Your task to perform on an android device: Empty the shopping cart on bestbuy. Search for "macbook" on bestbuy, select the first entry, and add it to the cart. Image 0: 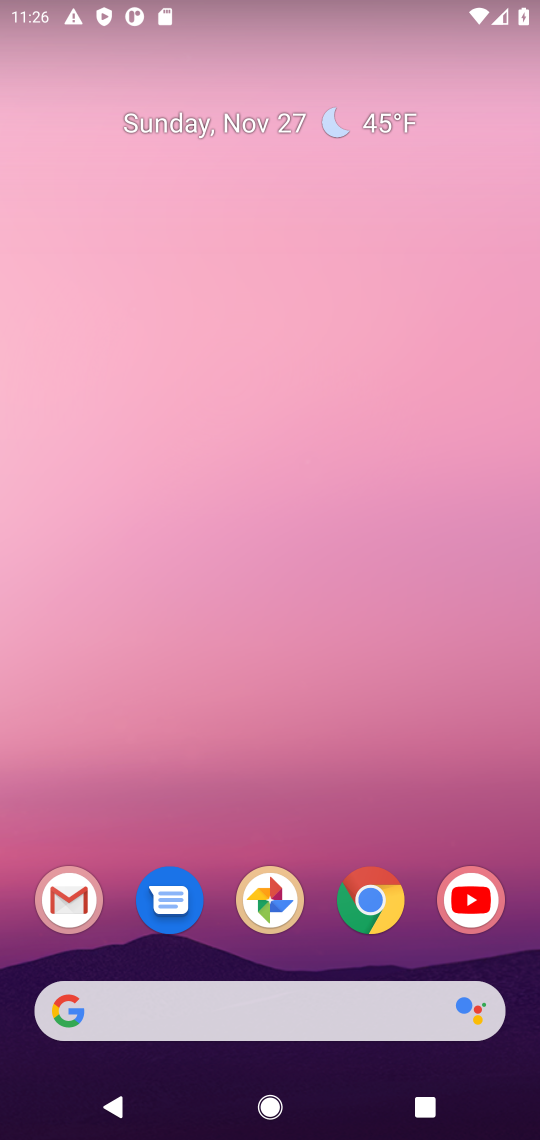
Step 0: click (363, 887)
Your task to perform on an android device: Empty the shopping cart on bestbuy. Search for "macbook" on bestbuy, select the first entry, and add it to the cart. Image 1: 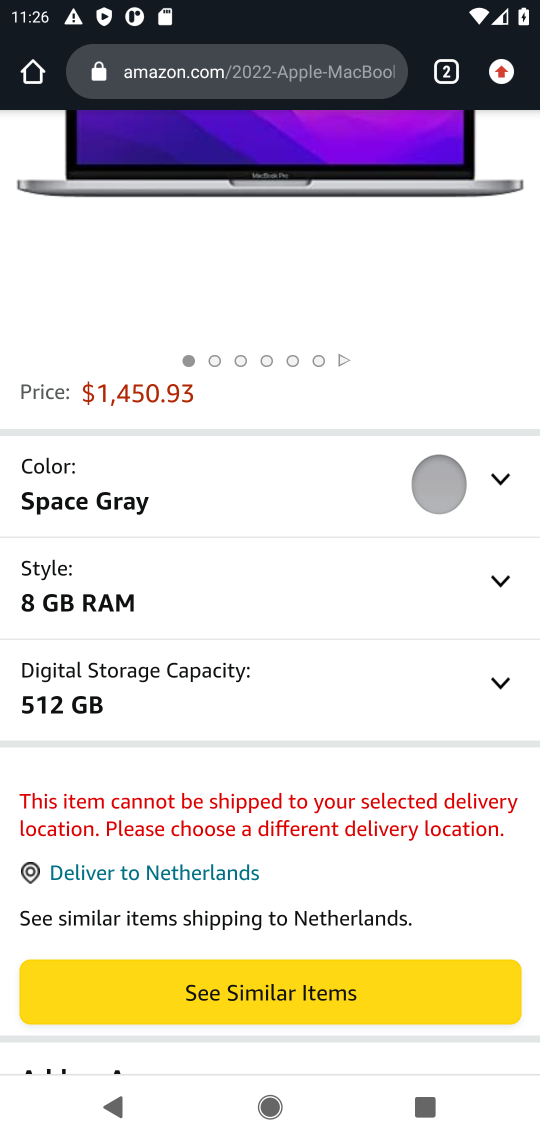
Step 1: click (240, 71)
Your task to perform on an android device: Empty the shopping cart on bestbuy. Search for "macbook" on bestbuy, select the first entry, and add it to the cart. Image 2: 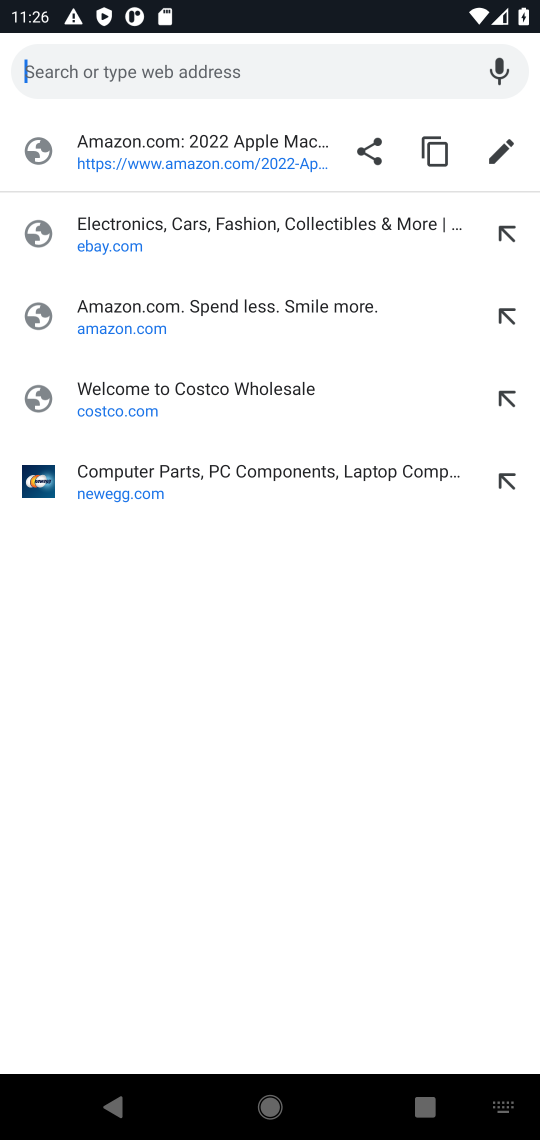
Step 2: type "bestbuy.com"
Your task to perform on an android device: Empty the shopping cart on bestbuy. Search for "macbook" on bestbuy, select the first entry, and add it to the cart. Image 3: 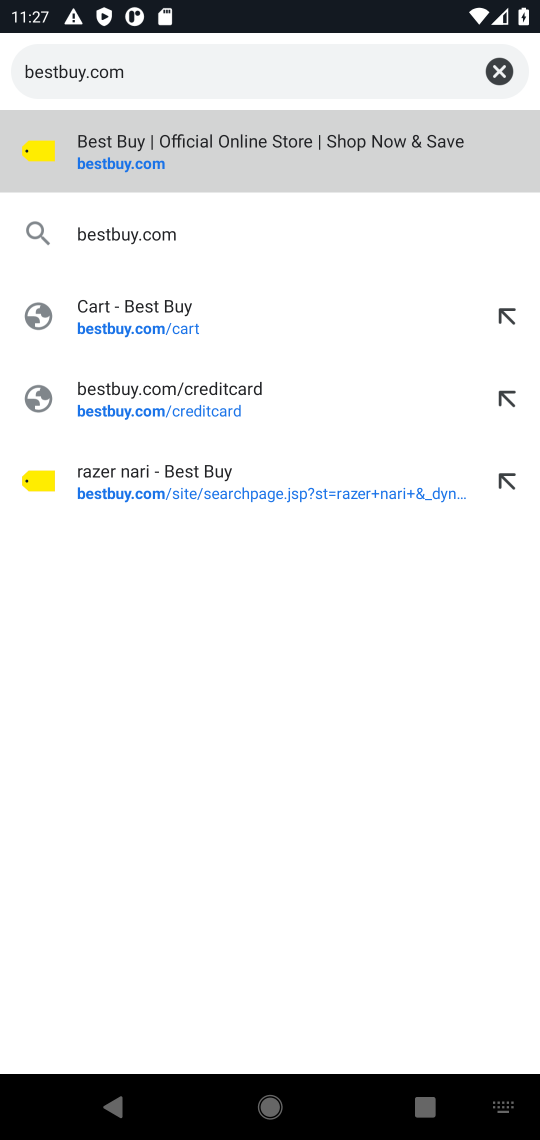
Step 3: click (111, 154)
Your task to perform on an android device: Empty the shopping cart on bestbuy. Search for "macbook" on bestbuy, select the first entry, and add it to the cart. Image 4: 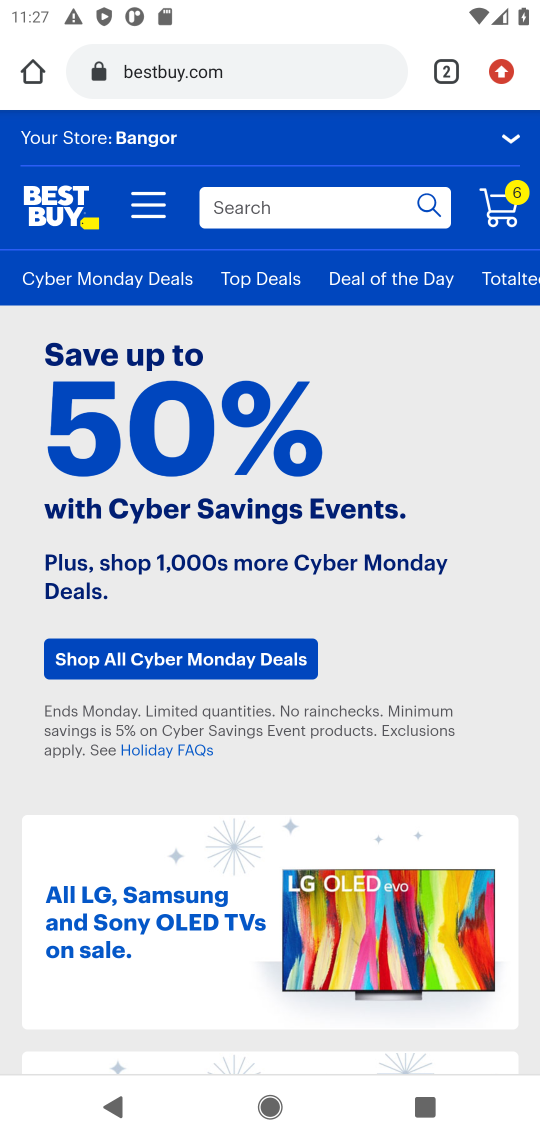
Step 4: click (504, 213)
Your task to perform on an android device: Empty the shopping cart on bestbuy. Search for "macbook" on bestbuy, select the first entry, and add it to the cart. Image 5: 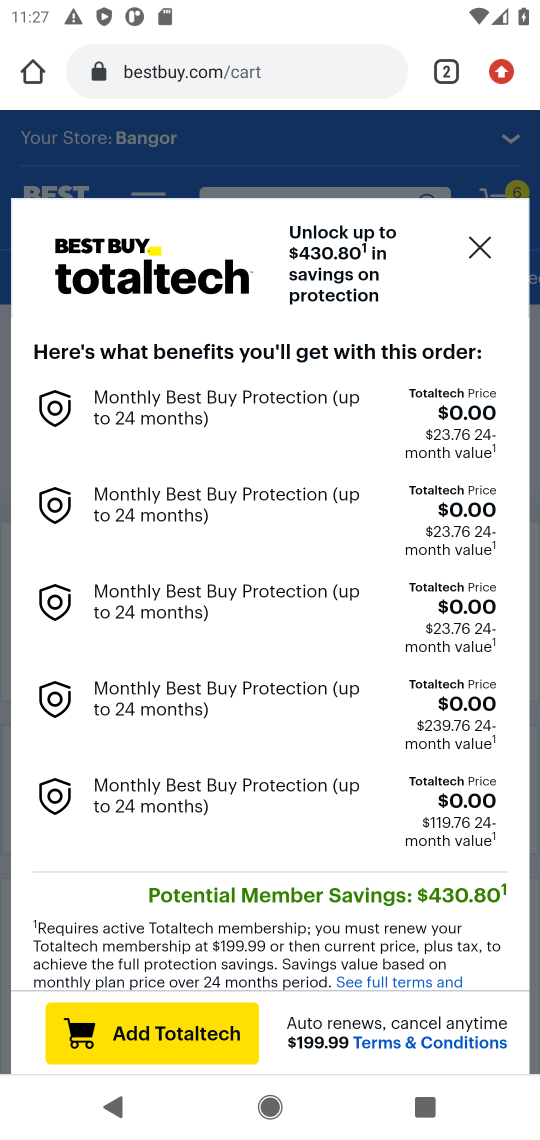
Step 5: click (486, 244)
Your task to perform on an android device: Empty the shopping cart on bestbuy. Search for "macbook" on bestbuy, select the first entry, and add it to the cart. Image 6: 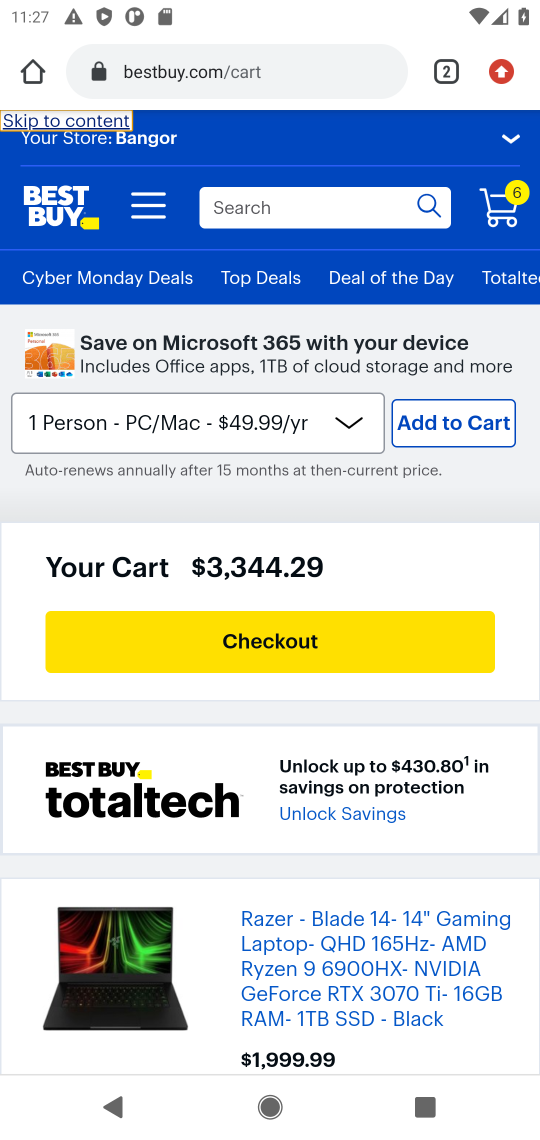
Step 6: drag from (233, 767) to (261, 289)
Your task to perform on an android device: Empty the shopping cart on bestbuy. Search for "macbook" on bestbuy, select the first entry, and add it to the cart. Image 7: 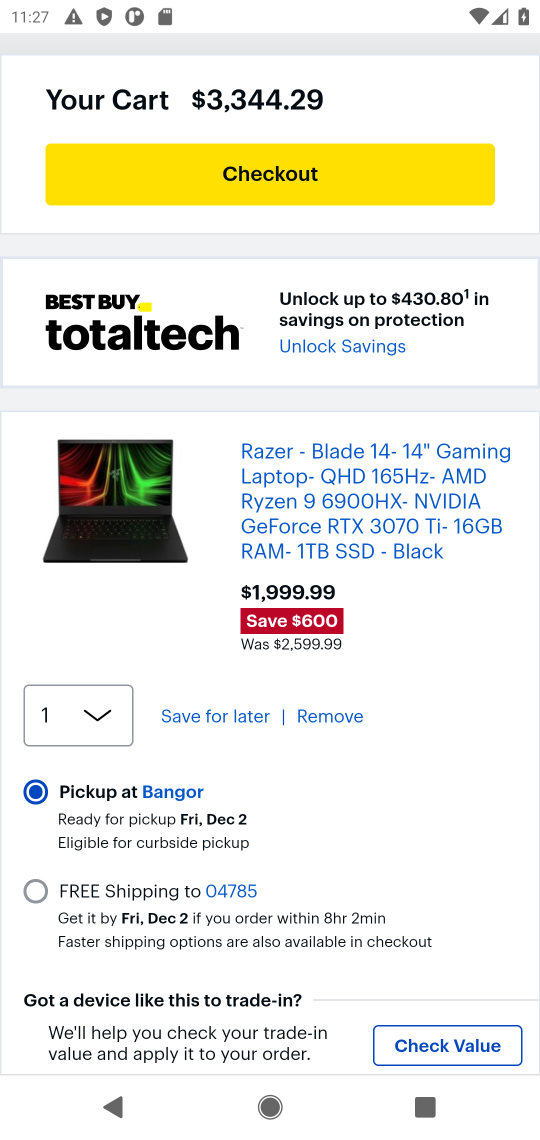
Step 7: click (328, 716)
Your task to perform on an android device: Empty the shopping cart on bestbuy. Search for "macbook" on bestbuy, select the first entry, and add it to the cart. Image 8: 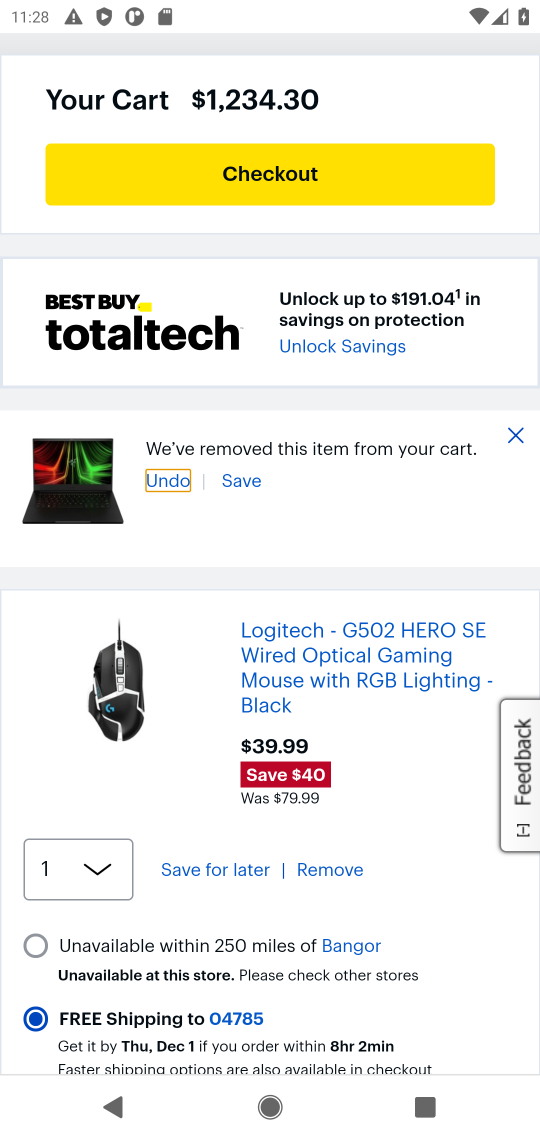
Step 8: click (314, 867)
Your task to perform on an android device: Empty the shopping cart on bestbuy. Search for "macbook" on bestbuy, select the first entry, and add it to the cart. Image 9: 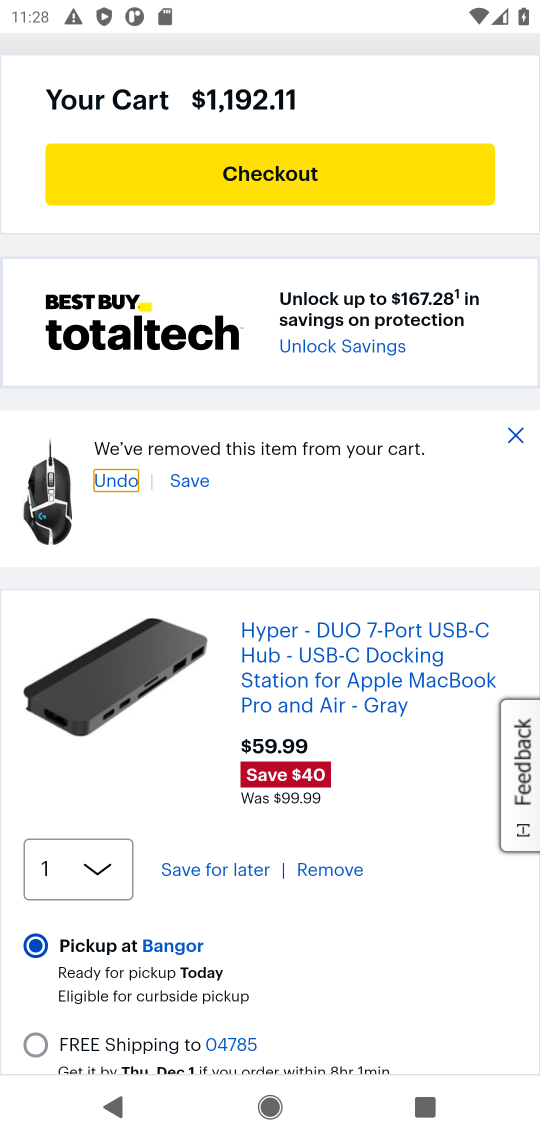
Step 9: click (350, 875)
Your task to perform on an android device: Empty the shopping cart on bestbuy. Search for "macbook" on bestbuy, select the first entry, and add it to the cart. Image 10: 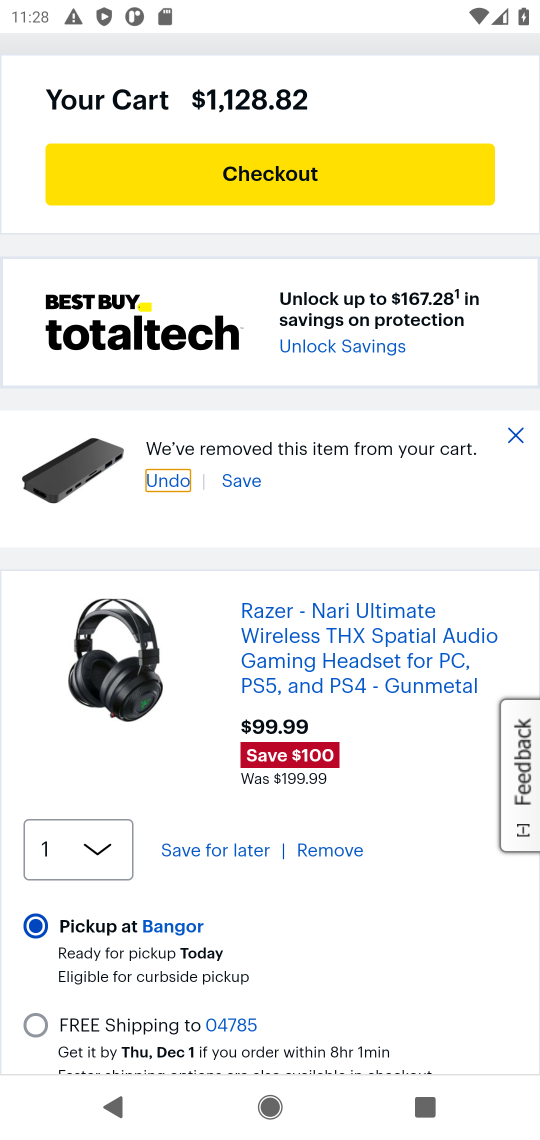
Step 10: click (341, 857)
Your task to perform on an android device: Empty the shopping cart on bestbuy. Search for "macbook" on bestbuy, select the first entry, and add it to the cart. Image 11: 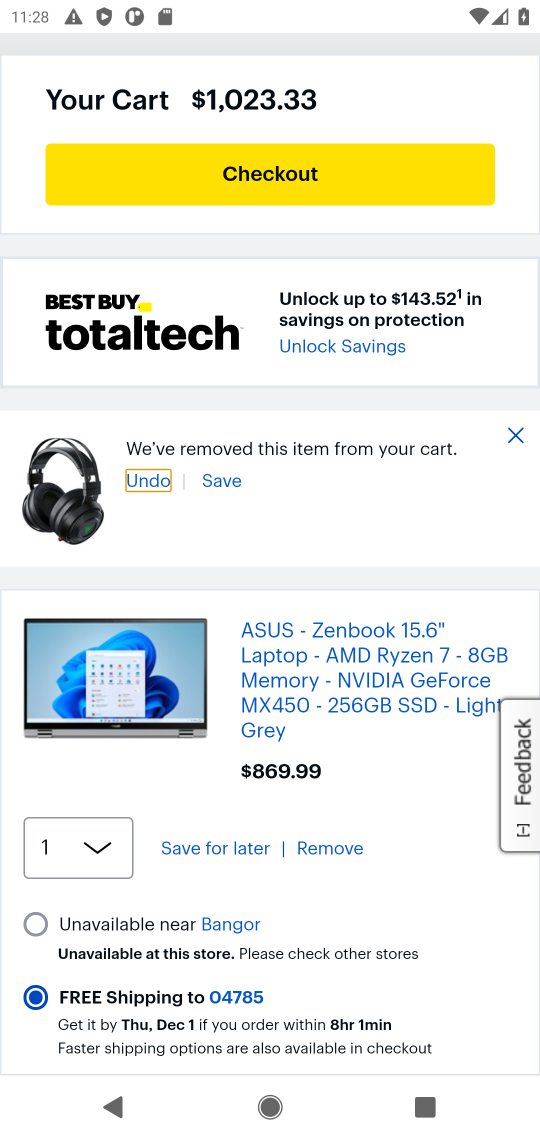
Step 11: click (341, 857)
Your task to perform on an android device: Empty the shopping cart on bestbuy. Search for "macbook" on bestbuy, select the first entry, and add it to the cart. Image 12: 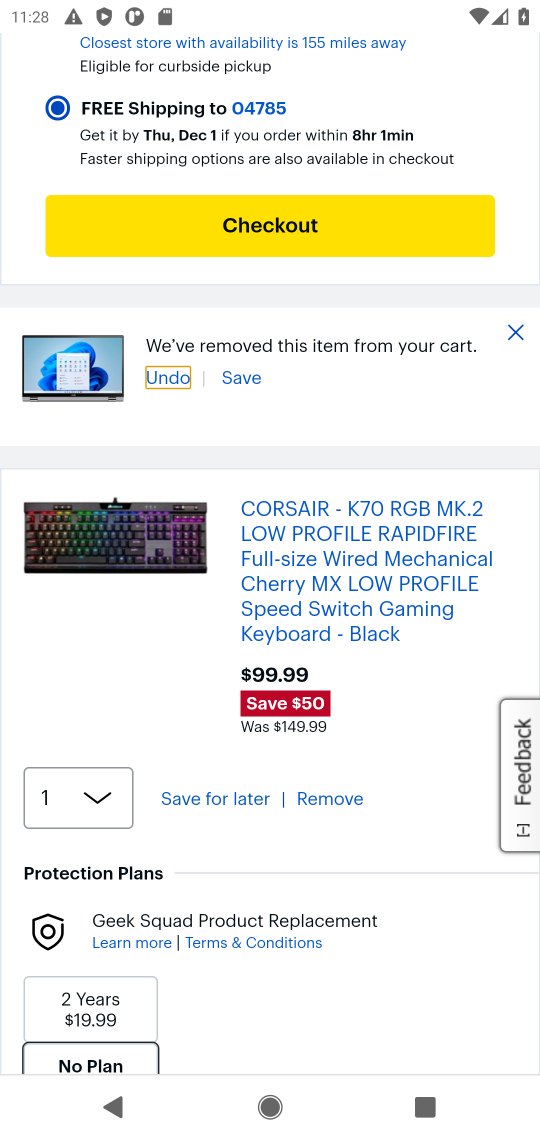
Step 12: click (339, 808)
Your task to perform on an android device: Empty the shopping cart on bestbuy. Search for "macbook" on bestbuy, select the first entry, and add it to the cart. Image 13: 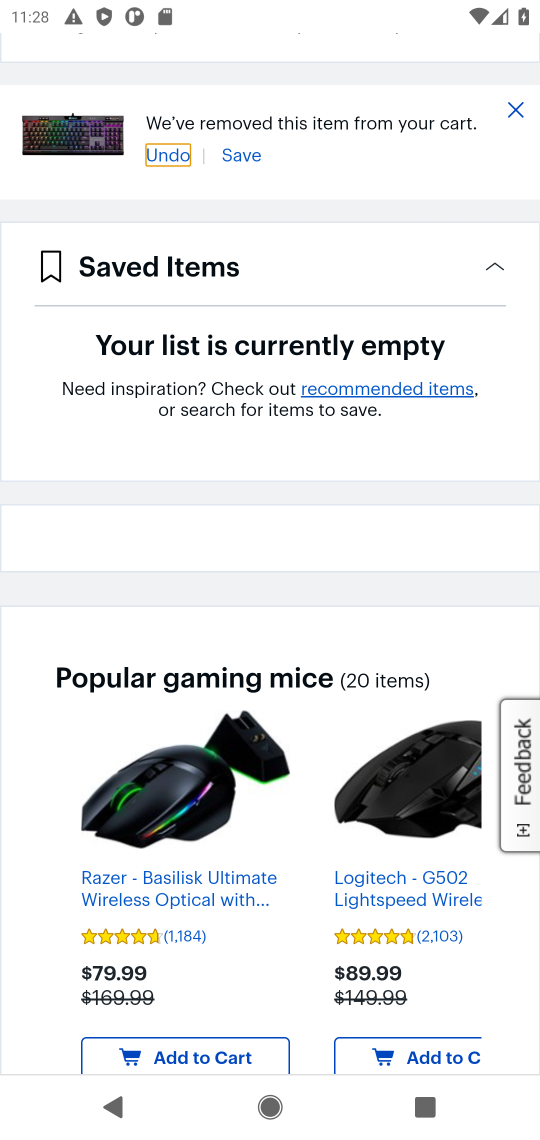
Step 13: drag from (414, 261) to (364, 628)
Your task to perform on an android device: Empty the shopping cart on bestbuy. Search for "macbook" on bestbuy, select the first entry, and add it to the cart. Image 14: 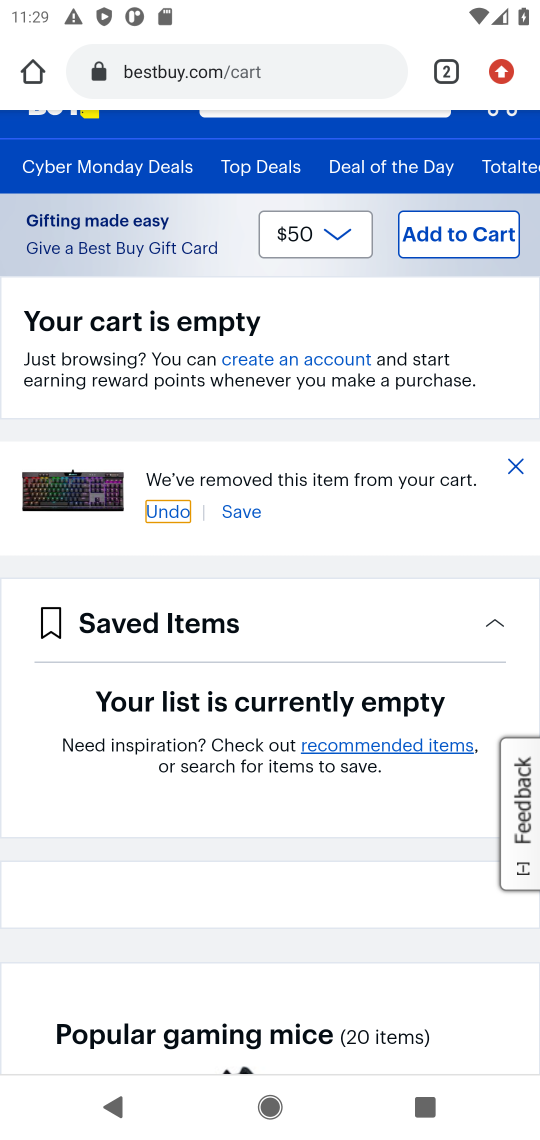
Step 14: drag from (212, 218) to (181, 522)
Your task to perform on an android device: Empty the shopping cart on bestbuy. Search for "macbook" on bestbuy, select the first entry, and add it to the cart. Image 15: 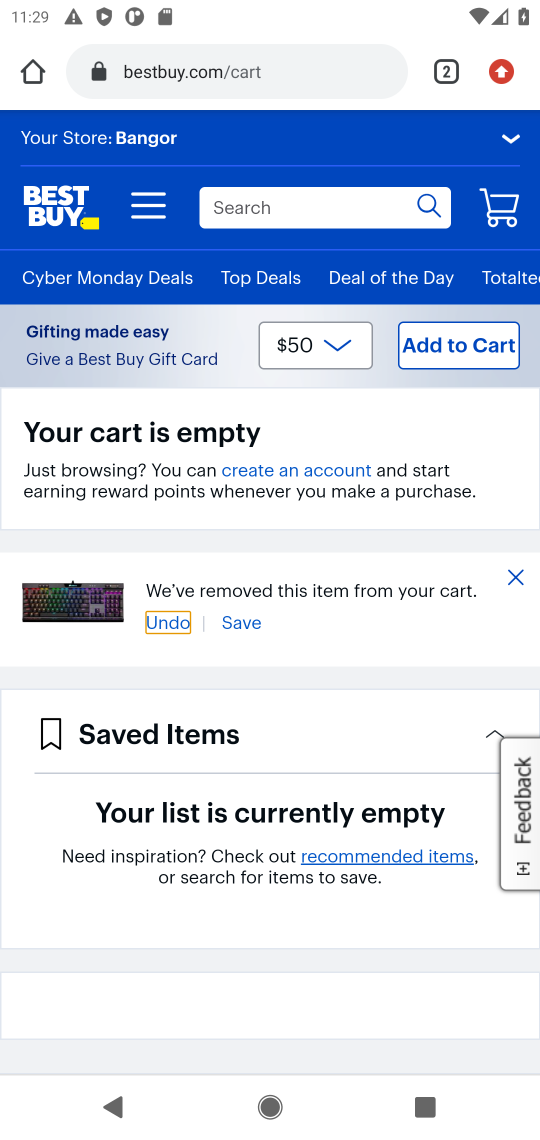
Step 15: click (241, 207)
Your task to perform on an android device: Empty the shopping cart on bestbuy. Search for "macbook" on bestbuy, select the first entry, and add it to the cart. Image 16: 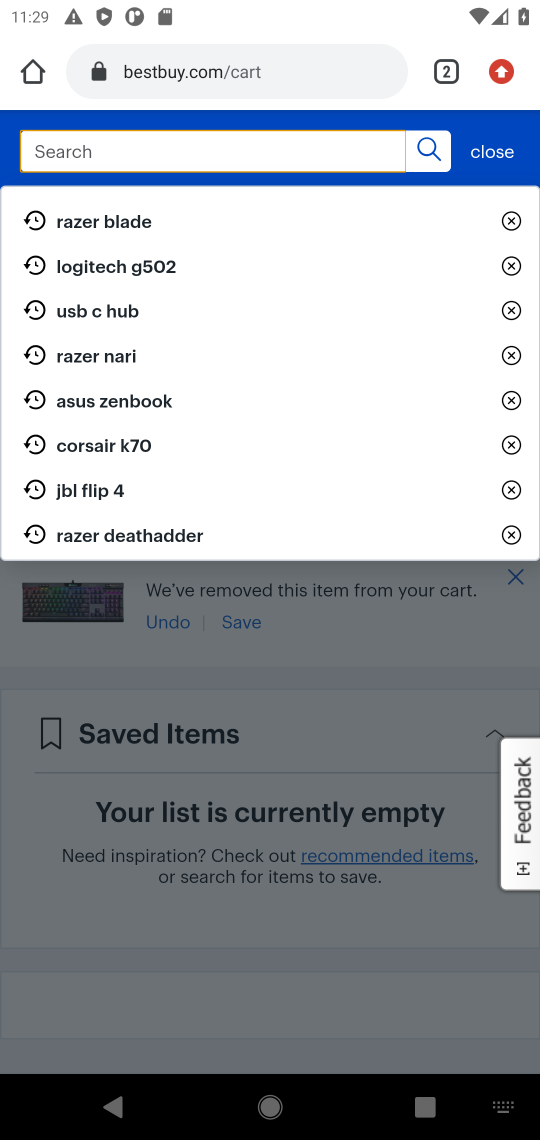
Step 16: type "macbook"
Your task to perform on an android device: Empty the shopping cart on bestbuy. Search for "macbook" on bestbuy, select the first entry, and add it to the cart. Image 17: 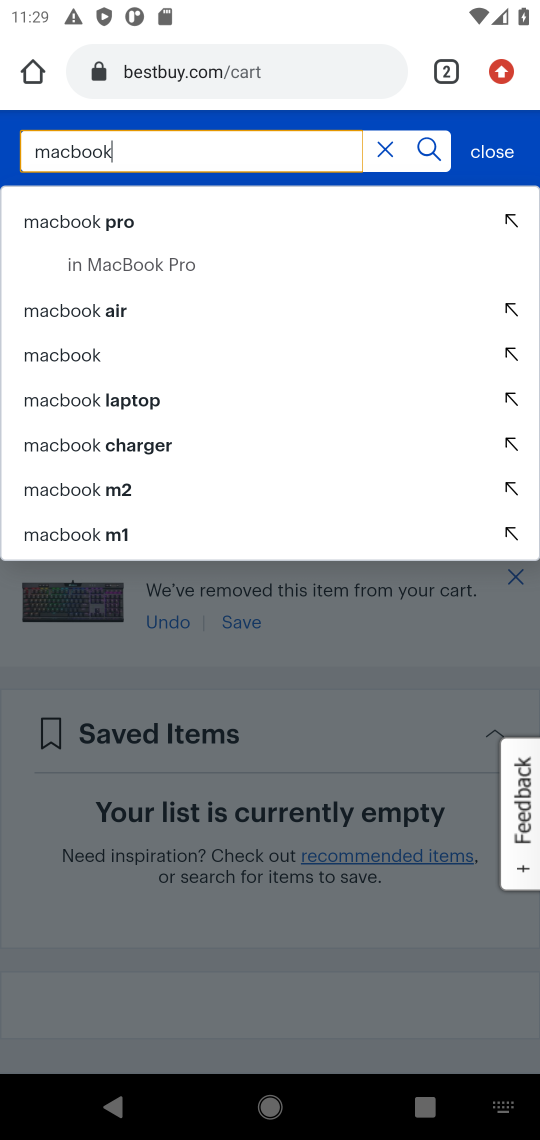
Step 17: click (55, 358)
Your task to perform on an android device: Empty the shopping cart on bestbuy. Search for "macbook" on bestbuy, select the first entry, and add it to the cart. Image 18: 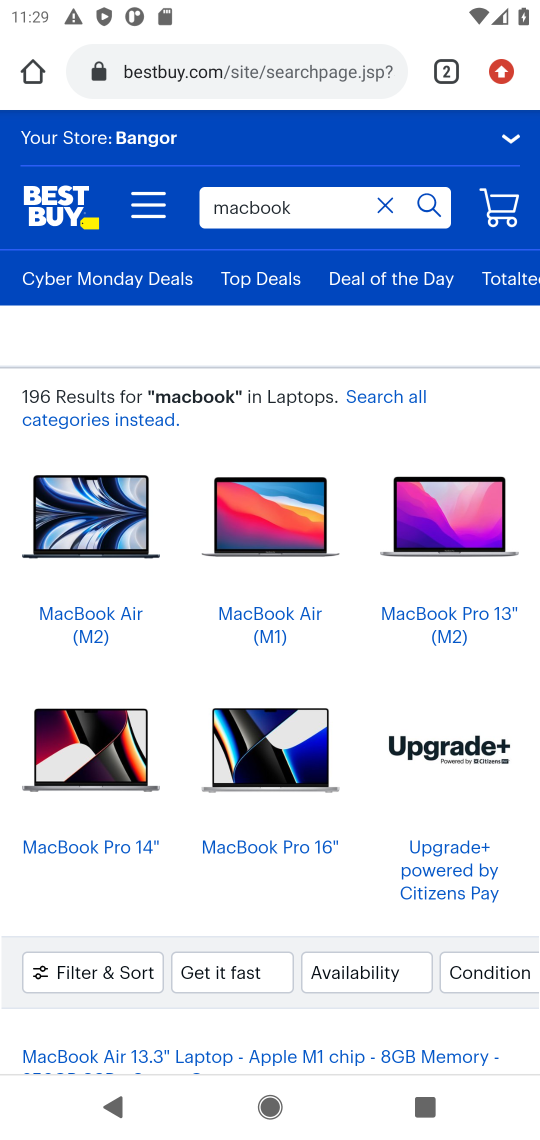
Step 18: drag from (173, 593) to (222, 237)
Your task to perform on an android device: Empty the shopping cart on bestbuy. Search for "macbook" on bestbuy, select the first entry, and add it to the cart. Image 19: 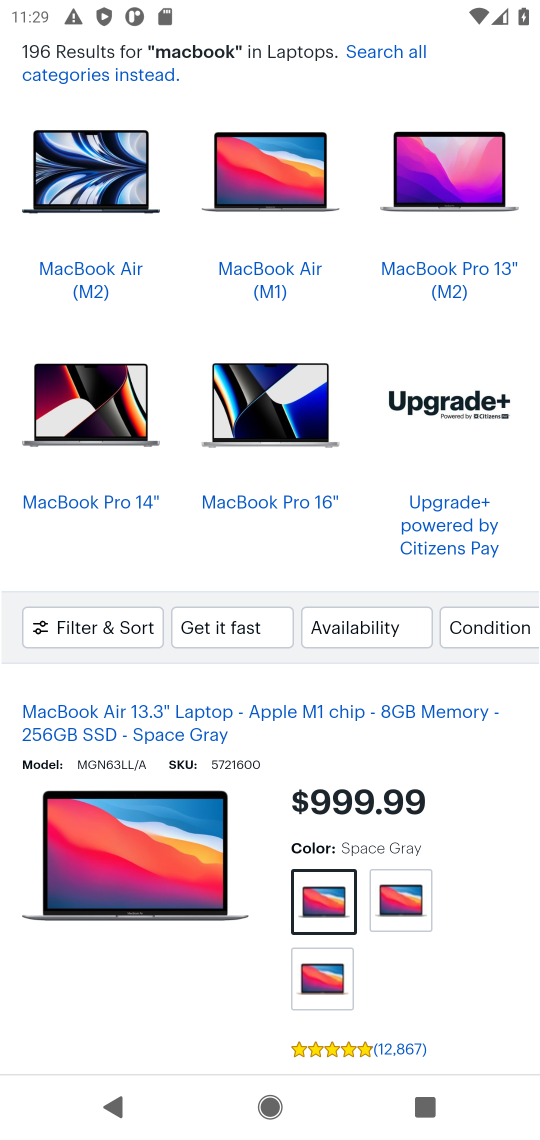
Step 19: drag from (205, 556) to (219, 225)
Your task to perform on an android device: Empty the shopping cart on bestbuy. Search for "macbook" on bestbuy, select the first entry, and add it to the cart. Image 20: 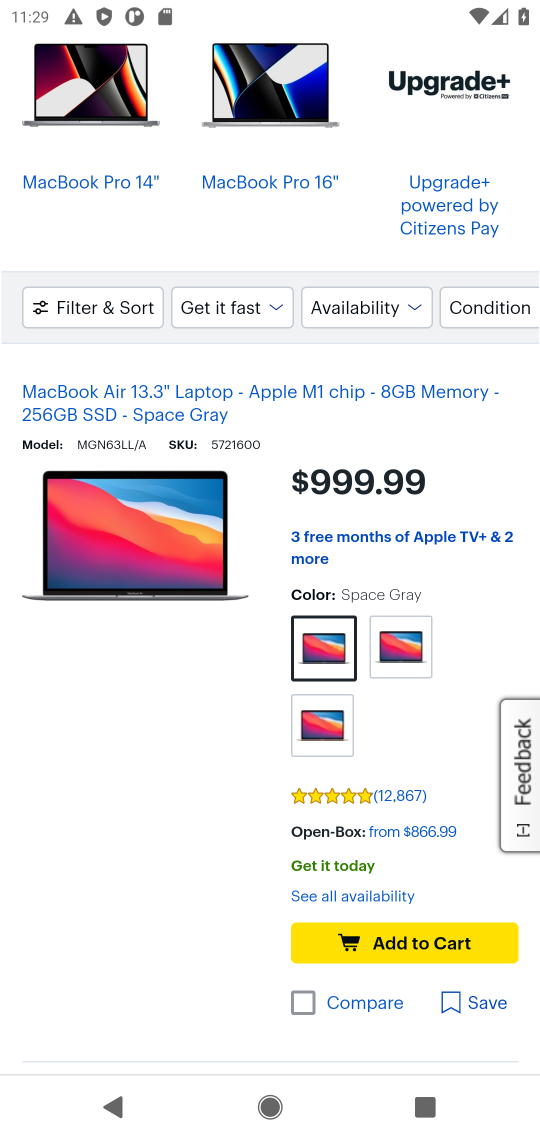
Step 20: click (402, 938)
Your task to perform on an android device: Empty the shopping cart on bestbuy. Search for "macbook" on bestbuy, select the first entry, and add it to the cart. Image 21: 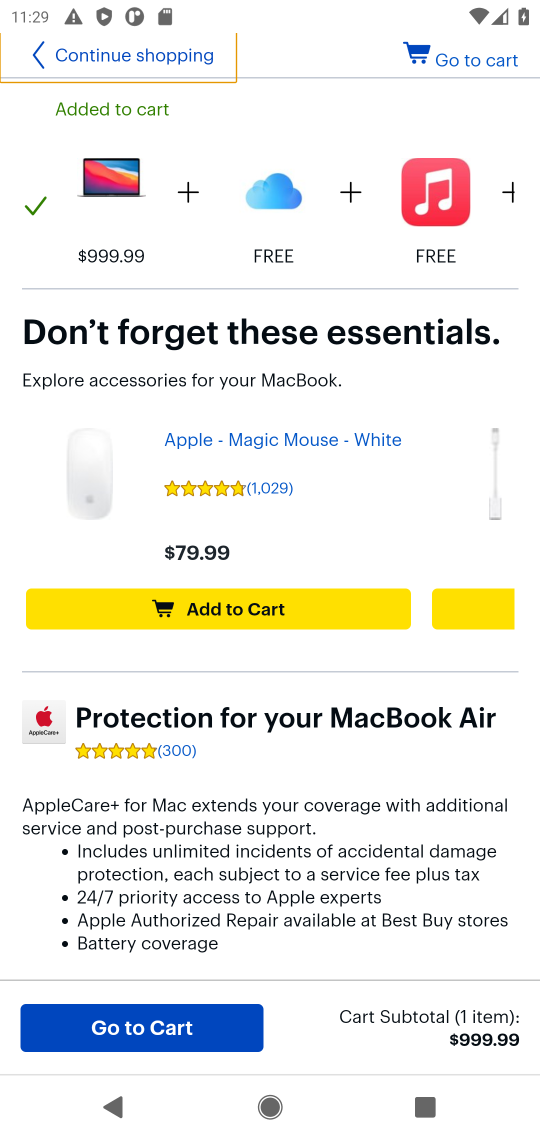
Step 21: task complete